Your task to perform on an android device: Open Chrome and go to settings Image 0: 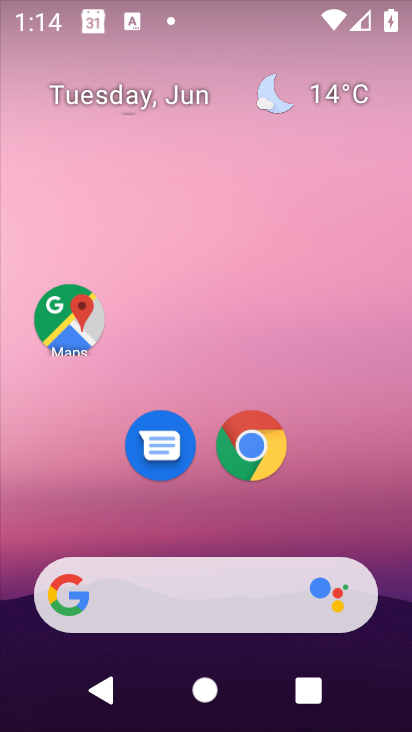
Step 0: click (240, 449)
Your task to perform on an android device: Open Chrome and go to settings Image 1: 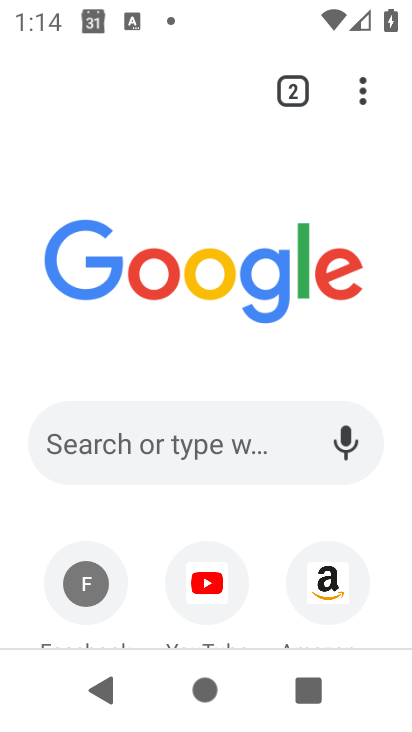
Step 1: click (381, 83)
Your task to perform on an android device: Open Chrome and go to settings Image 2: 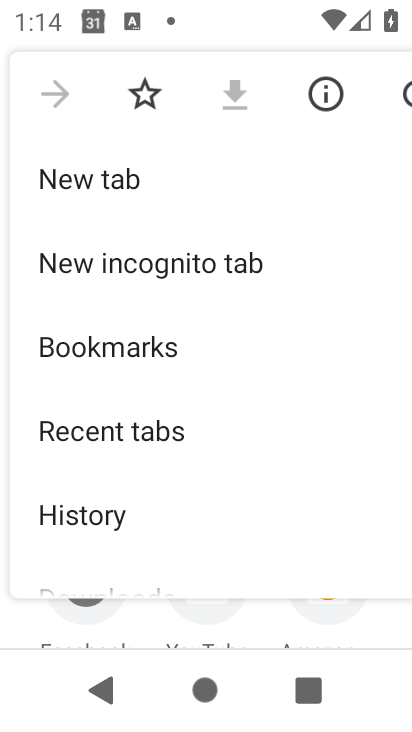
Step 2: drag from (137, 499) to (161, 139)
Your task to perform on an android device: Open Chrome and go to settings Image 3: 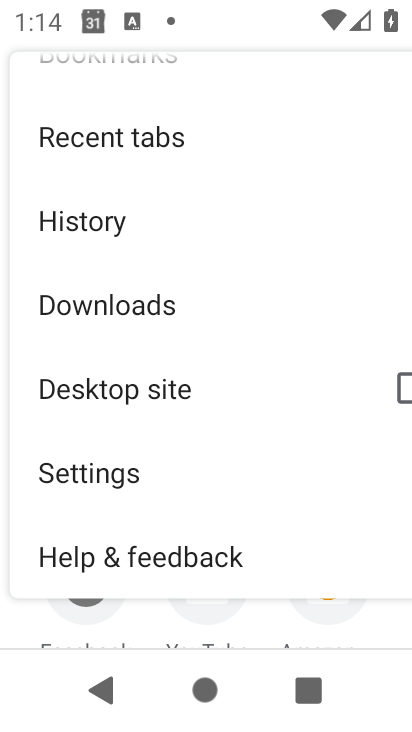
Step 3: click (72, 469)
Your task to perform on an android device: Open Chrome and go to settings Image 4: 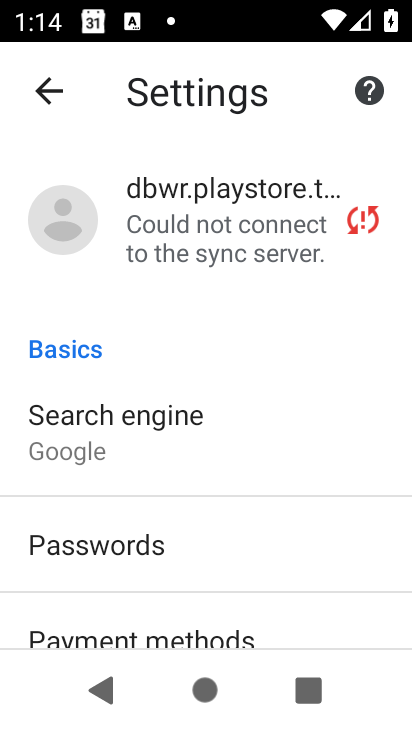
Step 4: task complete